Your task to perform on an android device: Go to privacy settings Image 0: 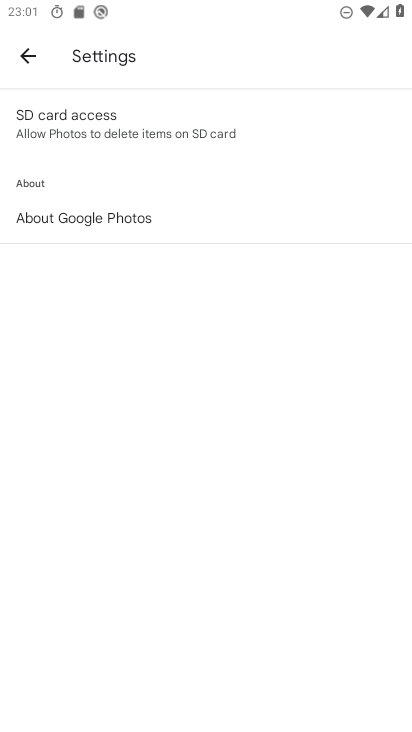
Step 0: press home button
Your task to perform on an android device: Go to privacy settings Image 1: 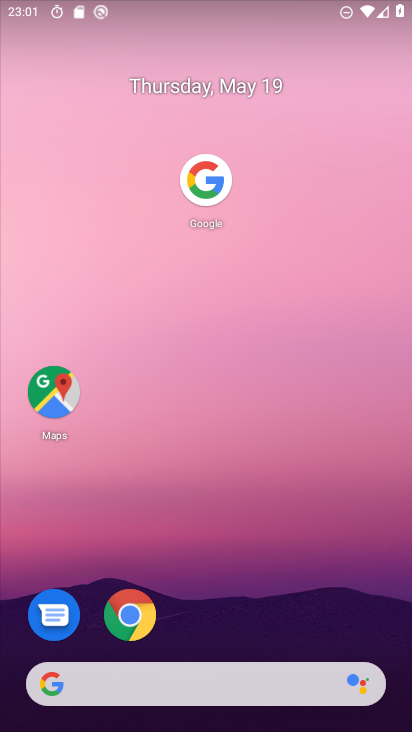
Step 1: drag from (272, 578) to (314, 29)
Your task to perform on an android device: Go to privacy settings Image 2: 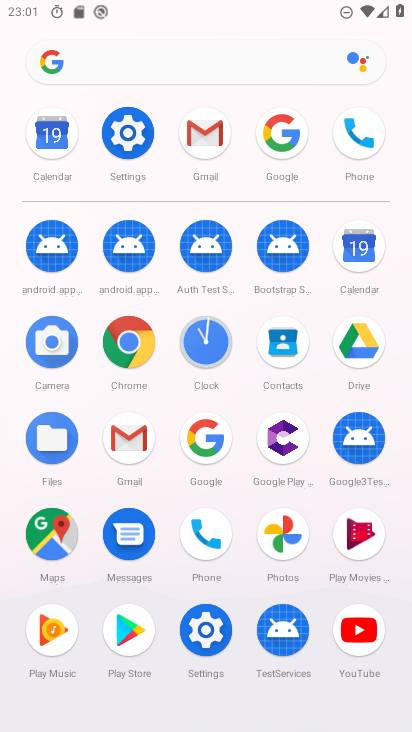
Step 2: click (127, 129)
Your task to perform on an android device: Go to privacy settings Image 3: 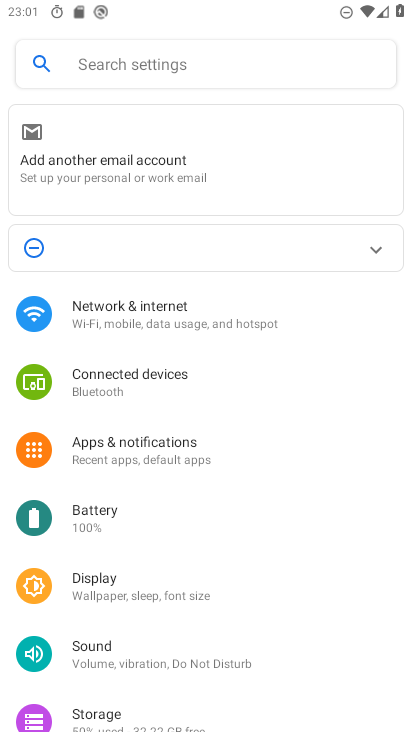
Step 3: drag from (229, 575) to (212, 215)
Your task to perform on an android device: Go to privacy settings Image 4: 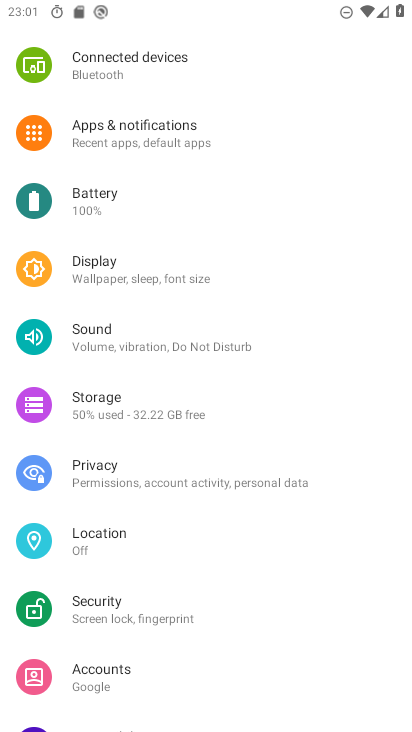
Step 4: click (106, 464)
Your task to perform on an android device: Go to privacy settings Image 5: 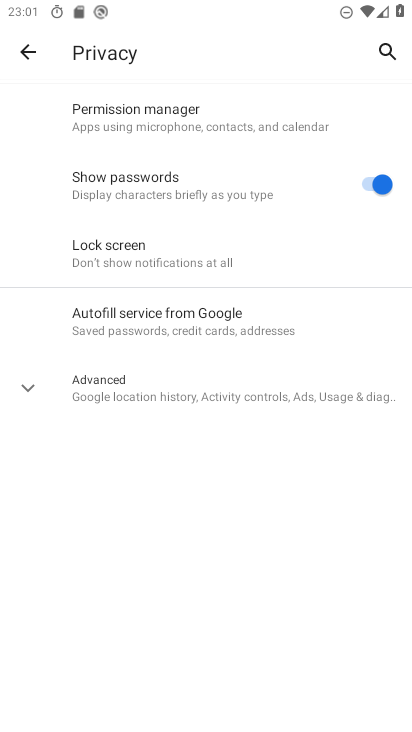
Step 5: task complete